Your task to perform on an android device: open app "Adobe Acrobat Reader: Edit PDF" (install if not already installed) and enter user name: "arthritis@inbox.com" and password: "scythes" Image 0: 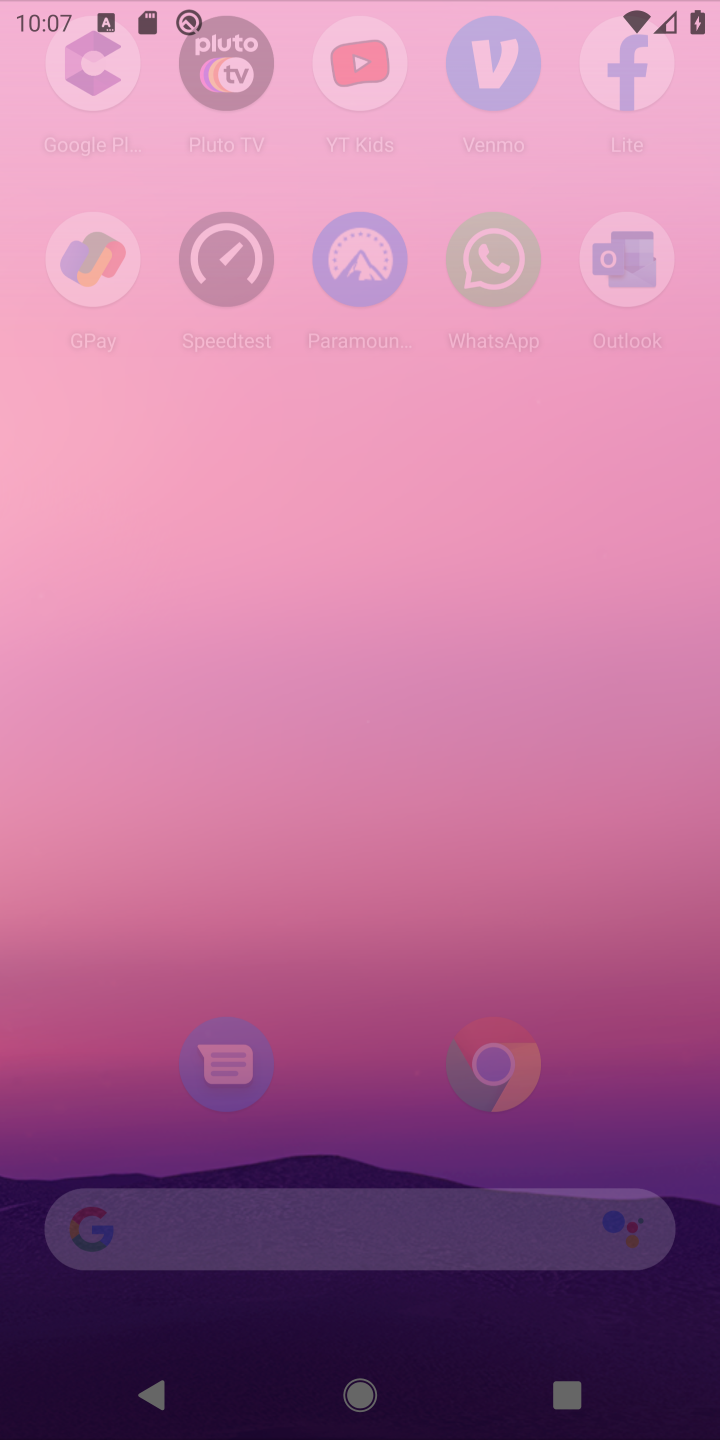
Step 0: press home button
Your task to perform on an android device: open app "Adobe Acrobat Reader: Edit PDF" (install if not already installed) and enter user name: "arthritis@inbox.com" and password: "scythes" Image 1: 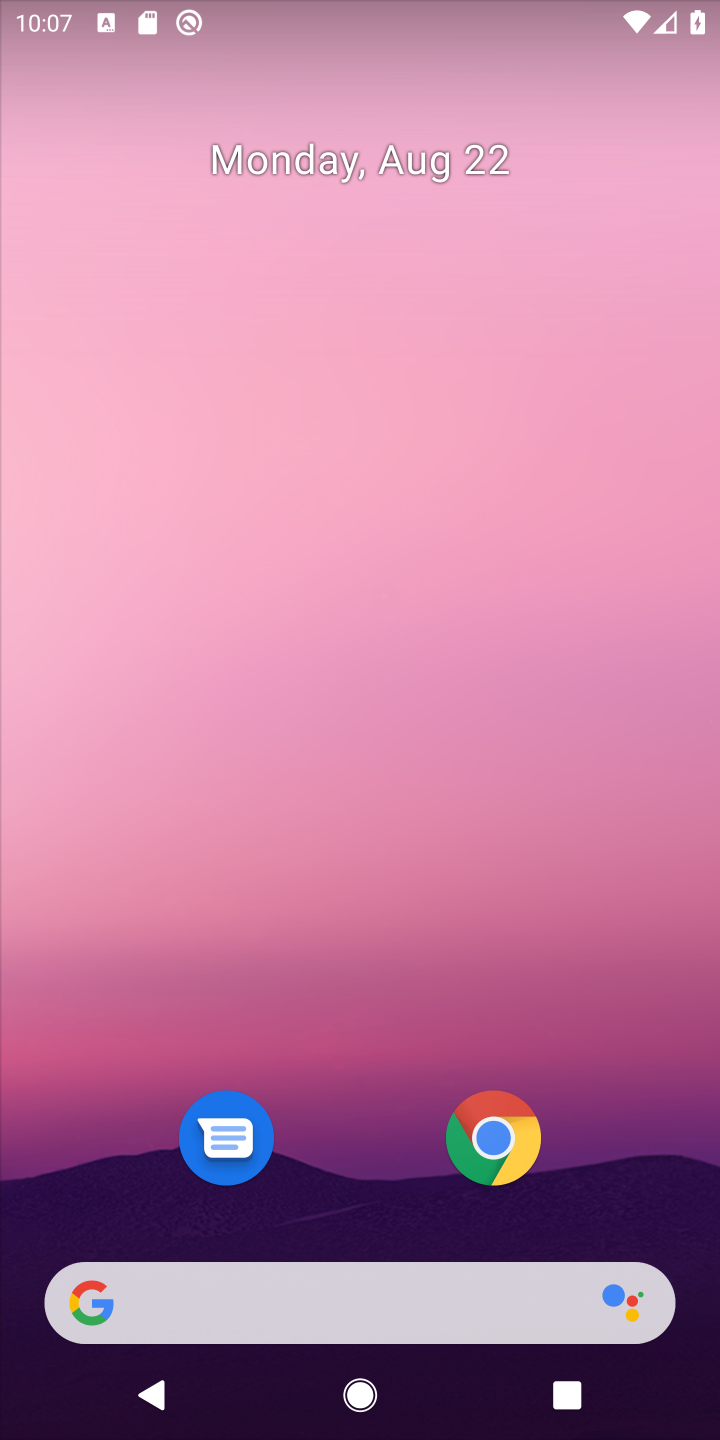
Step 1: drag from (375, 1214) to (340, 71)
Your task to perform on an android device: open app "Adobe Acrobat Reader: Edit PDF" (install if not already installed) and enter user name: "arthritis@inbox.com" and password: "scythes" Image 2: 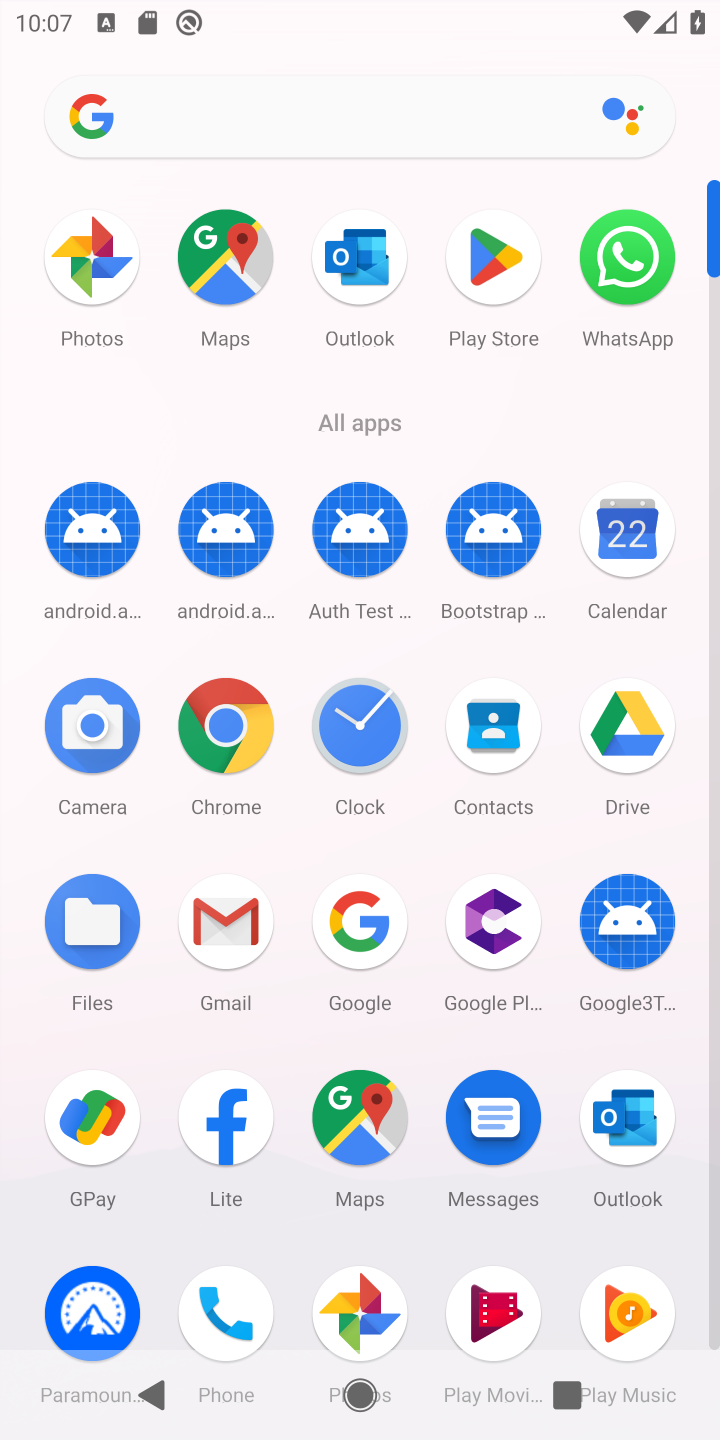
Step 2: drag from (413, 1227) to (441, 107)
Your task to perform on an android device: open app "Adobe Acrobat Reader: Edit PDF" (install if not already installed) and enter user name: "arthritis@inbox.com" and password: "scythes" Image 3: 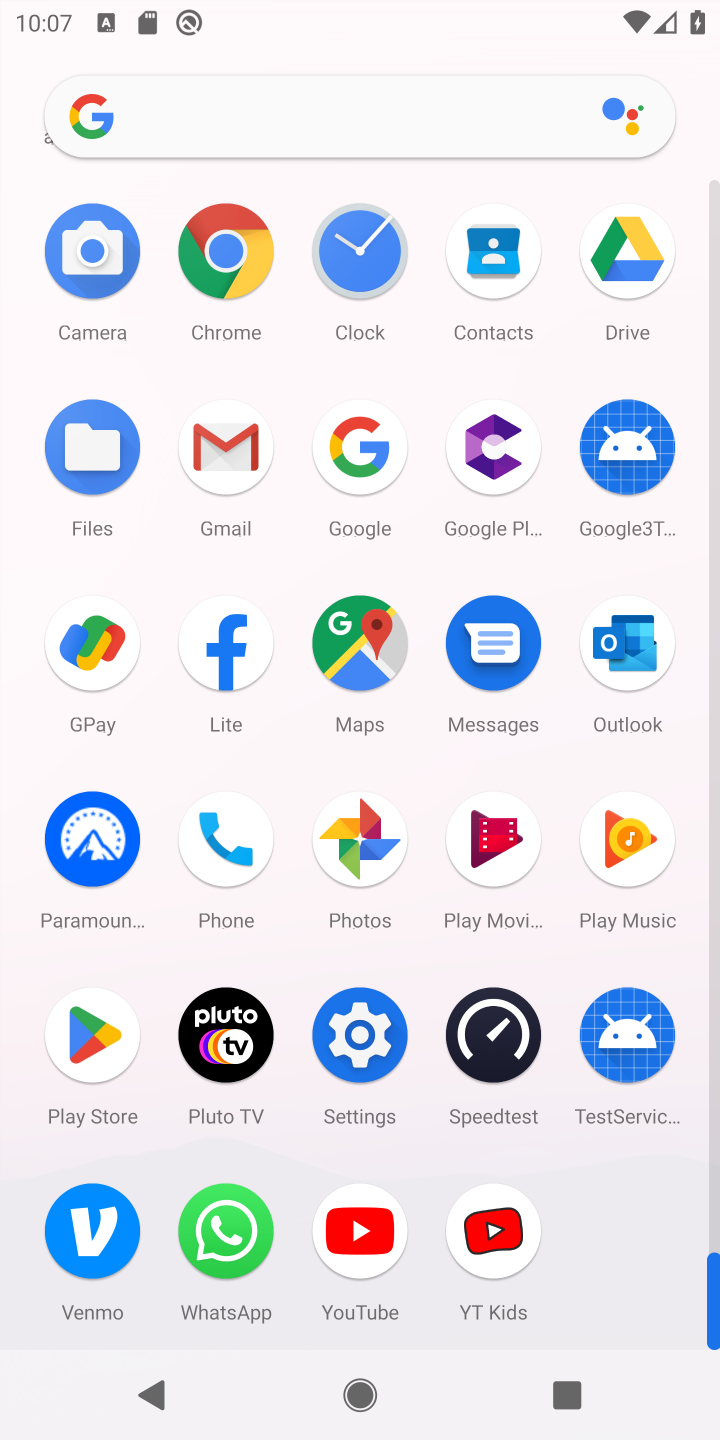
Step 3: click (85, 1022)
Your task to perform on an android device: open app "Adobe Acrobat Reader: Edit PDF" (install if not already installed) and enter user name: "arthritis@inbox.com" and password: "scythes" Image 4: 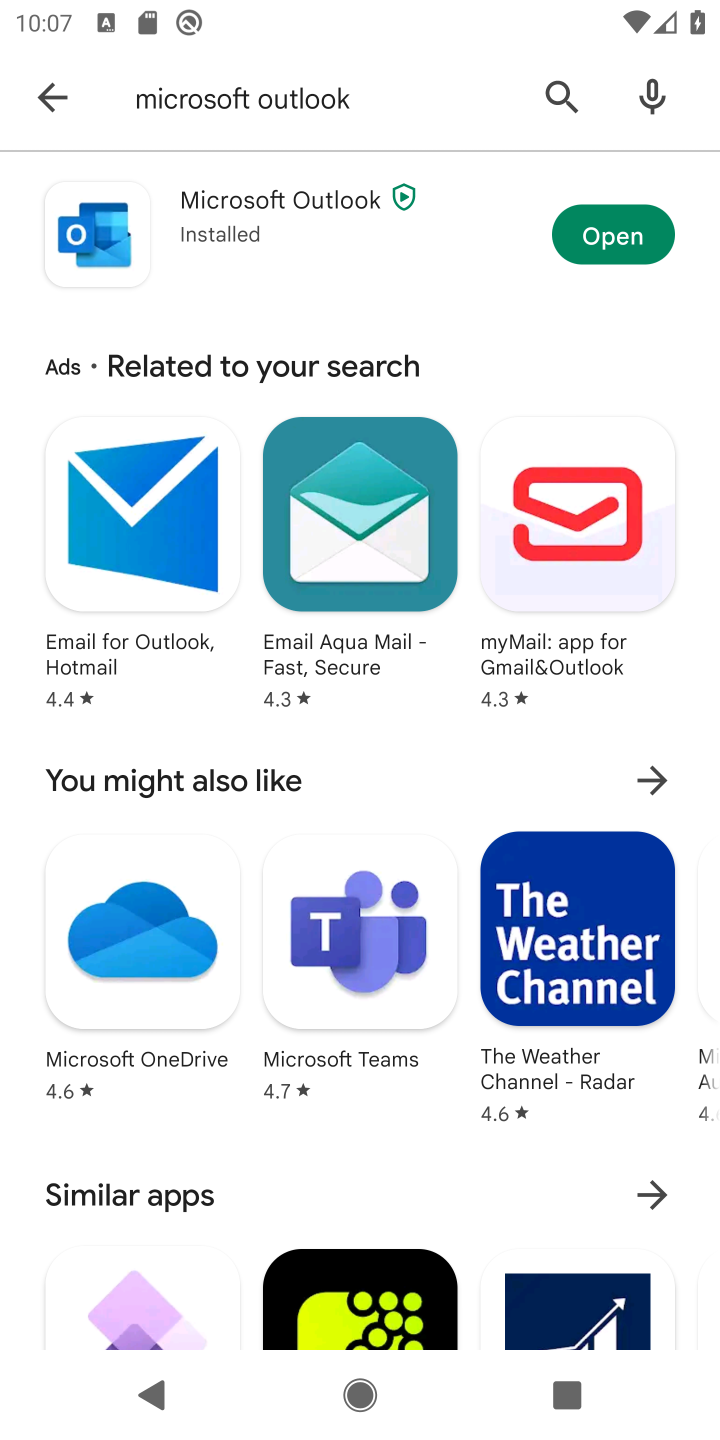
Step 4: click (567, 93)
Your task to perform on an android device: open app "Adobe Acrobat Reader: Edit PDF" (install if not already installed) and enter user name: "arthritis@inbox.com" and password: "scythes" Image 5: 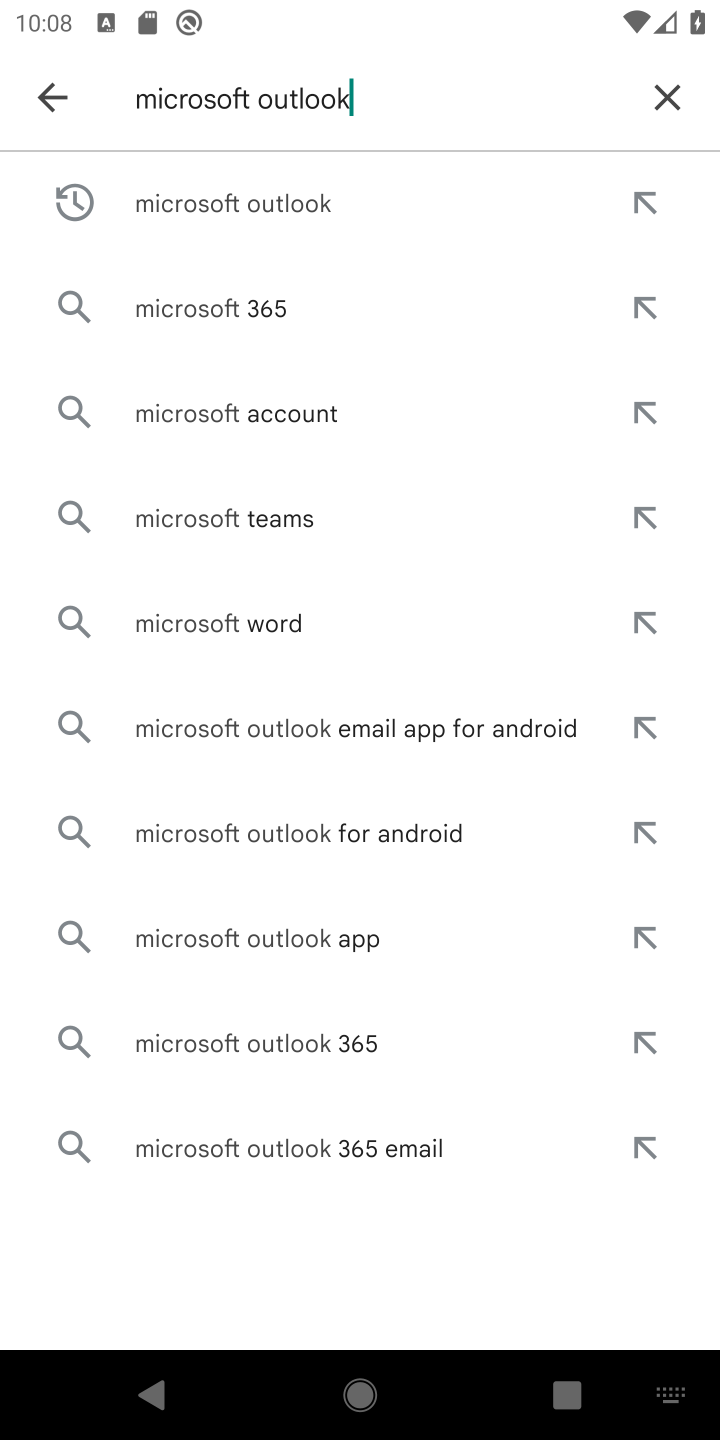
Step 5: click (658, 88)
Your task to perform on an android device: open app "Adobe Acrobat Reader: Edit PDF" (install if not already installed) and enter user name: "arthritis@inbox.com" and password: "scythes" Image 6: 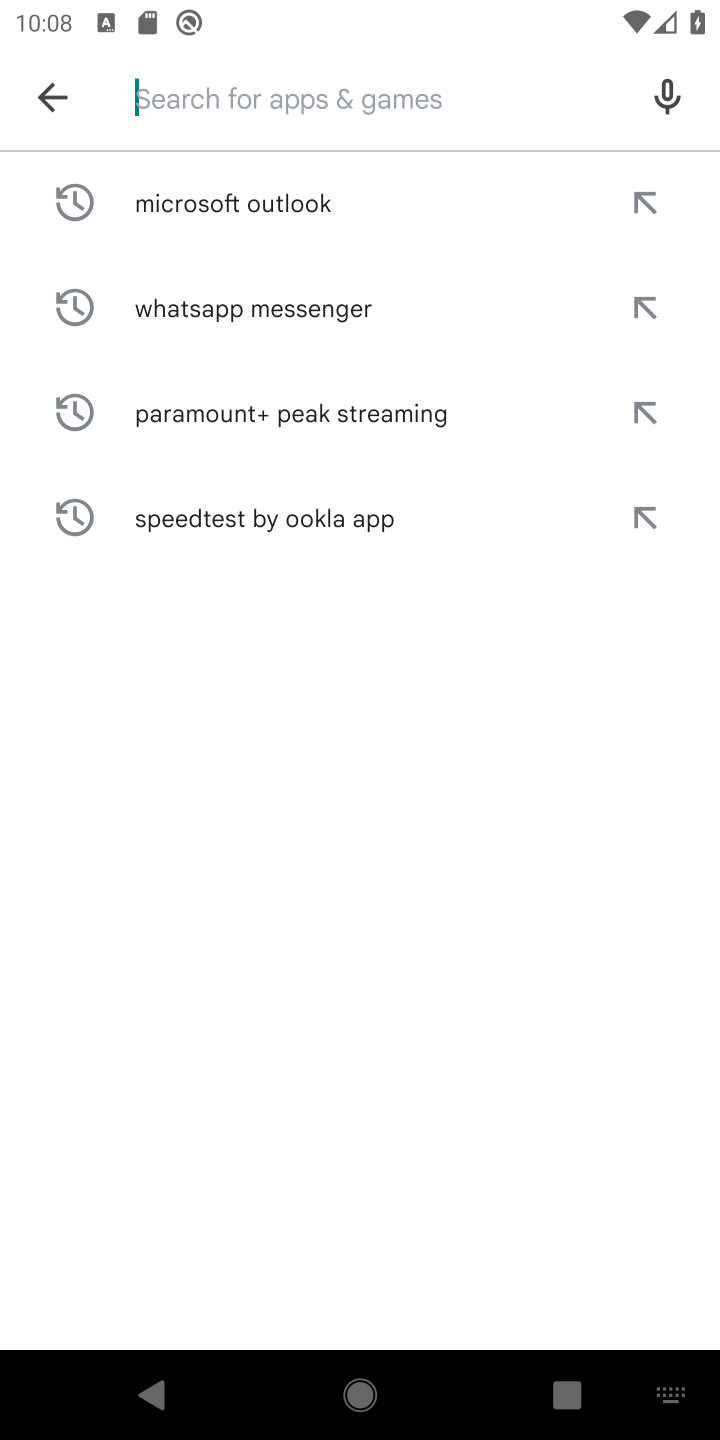
Step 6: type "Adobe Acrobat Reader: Edit PDF"
Your task to perform on an android device: open app "Adobe Acrobat Reader: Edit PDF" (install if not already installed) and enter user name: "arthritis@inbox.com" and password: "scythes" Image 7: 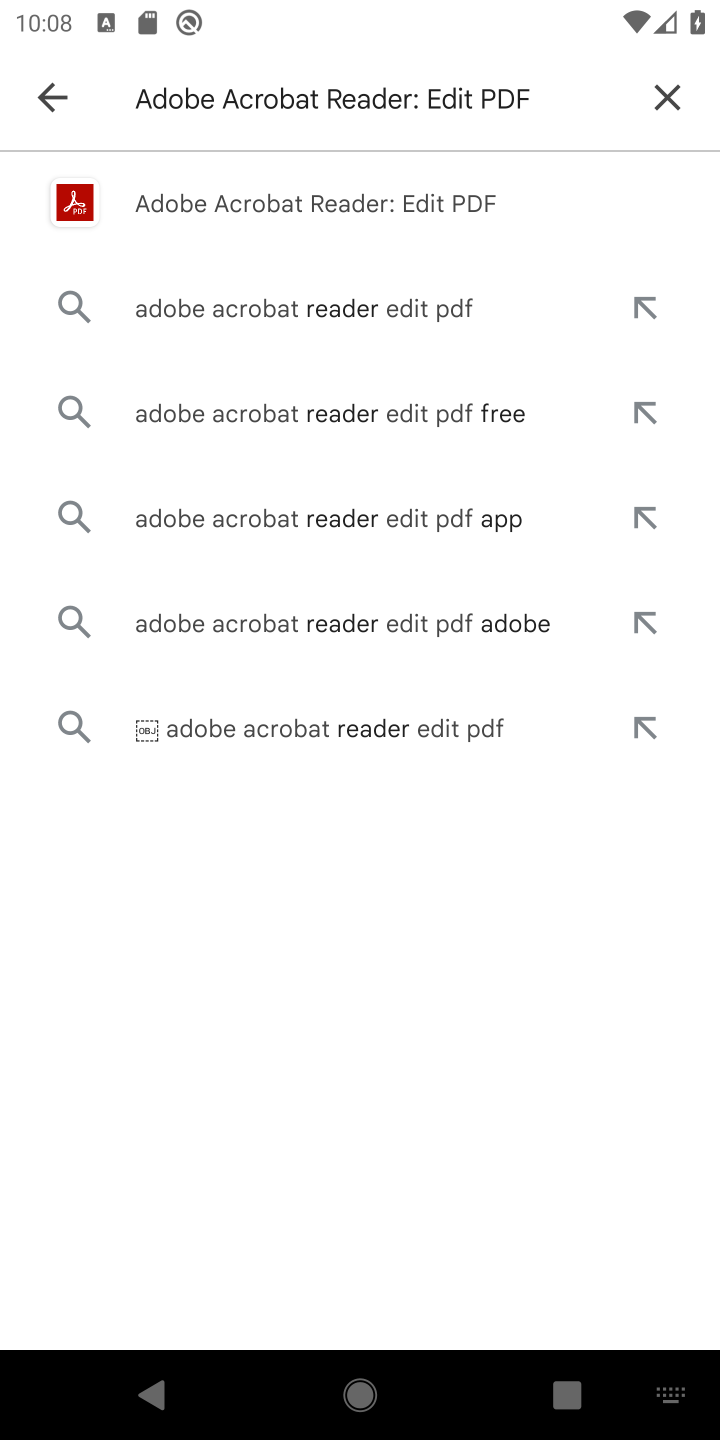
Step 7: click (294, 205)
Your task to perform on an android device: open app "Adobe Acrobat Reader: Edit PDF" (install if not already installed) and enter user name: "arthritis@inbox.com" and password: "scythes" Image 8: 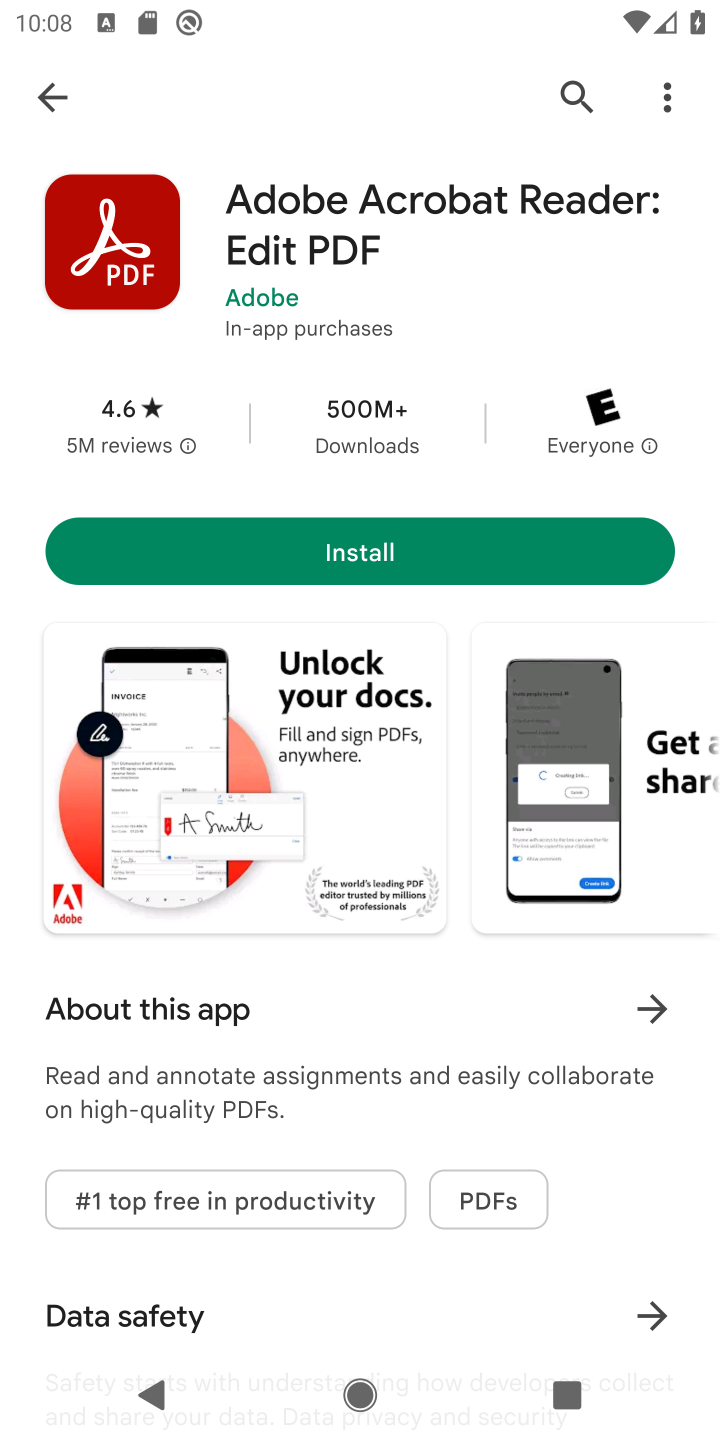
Step 8: click (360, 550)
Your task to perform on an android device: open app "Adobe Acrobat Reader: Edit PDF" (install if not already installed) and enter user name: "arthritis@inbox.com" and password: "scythes" Image 9: 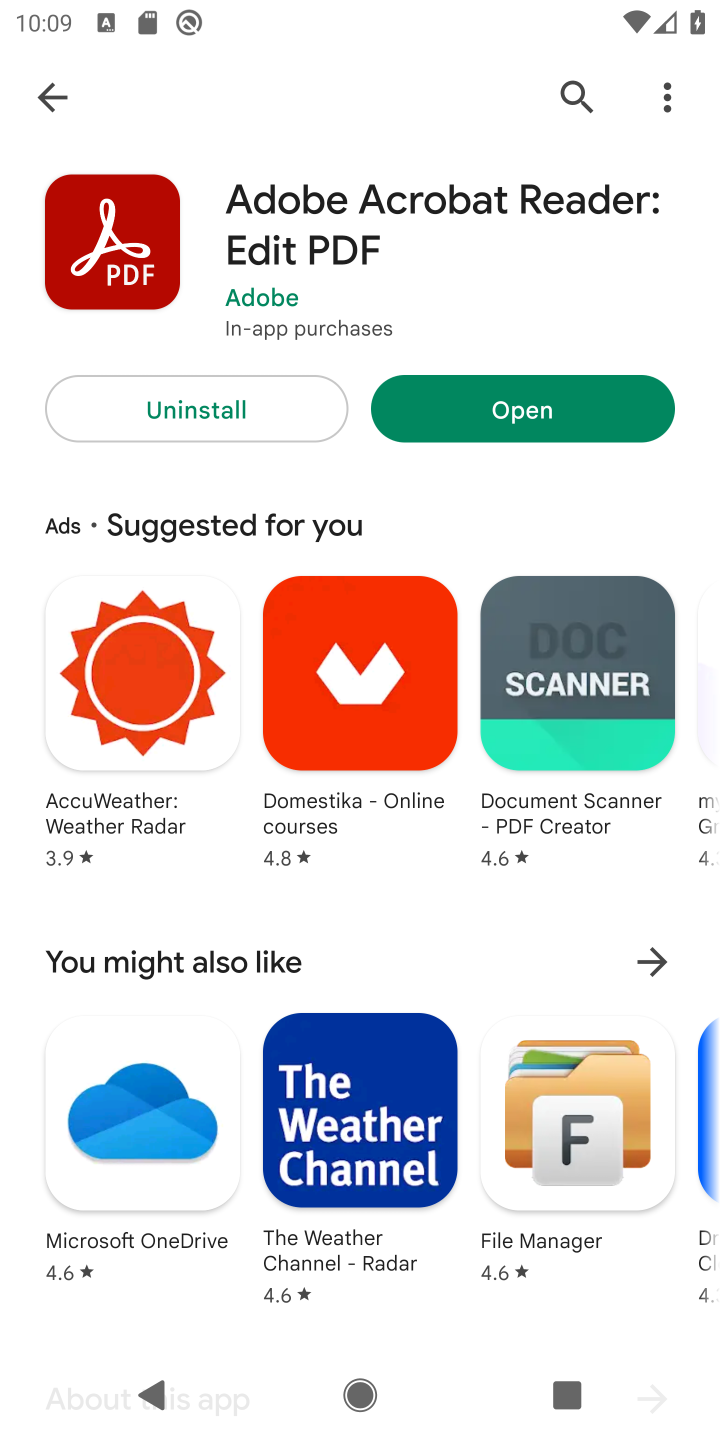
Step 9: click (532, 410)
Your task to perform on an android device: open app "Adobe Acrobat Reader: Edit PDF" (install if not already installed) and enter user name: "arthritis@inbox.com" and password: "scythes" Image 10: 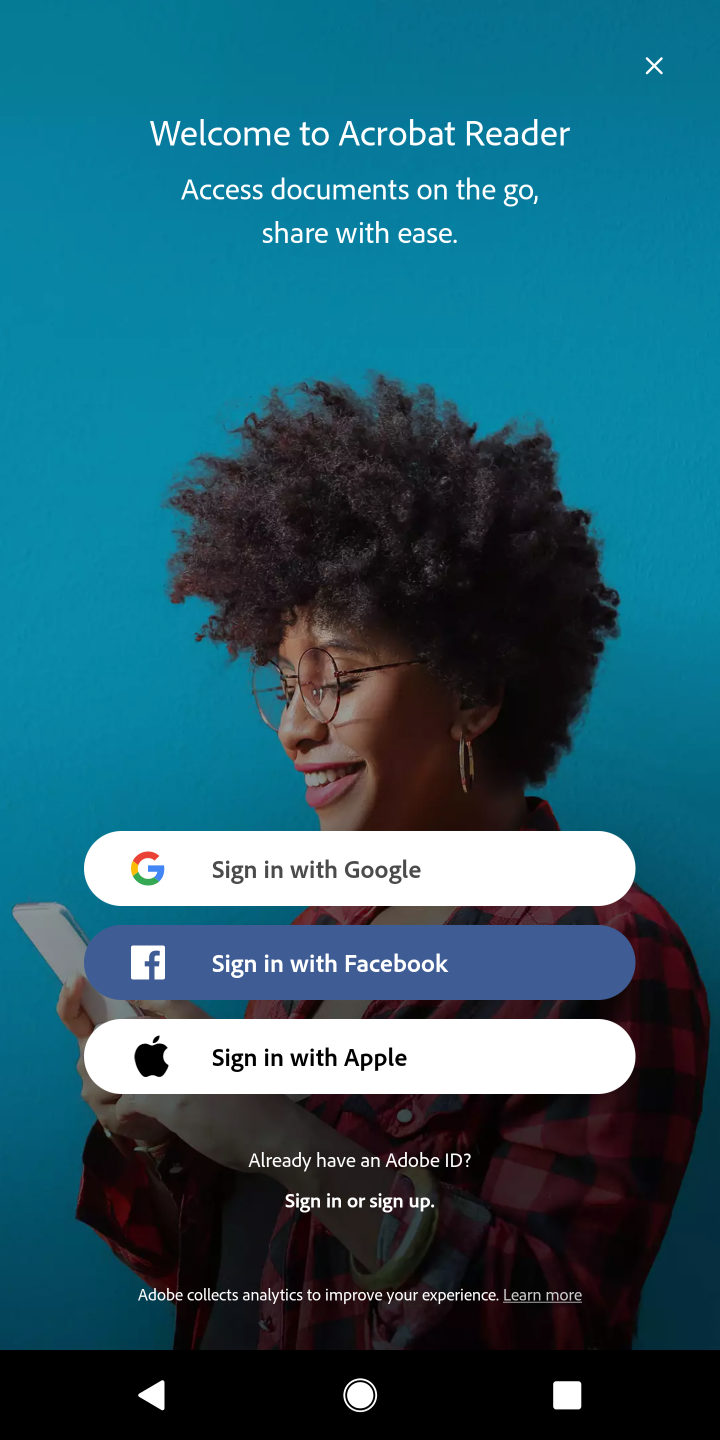
Step 10: click (268, 867)
Your task to perform on an android device: open app "Adobe Acrobat Reader: Edit PDF" (install if not already installed) and enter user name: "arthritis@inbox.com" and password: "scythes" Image 11: 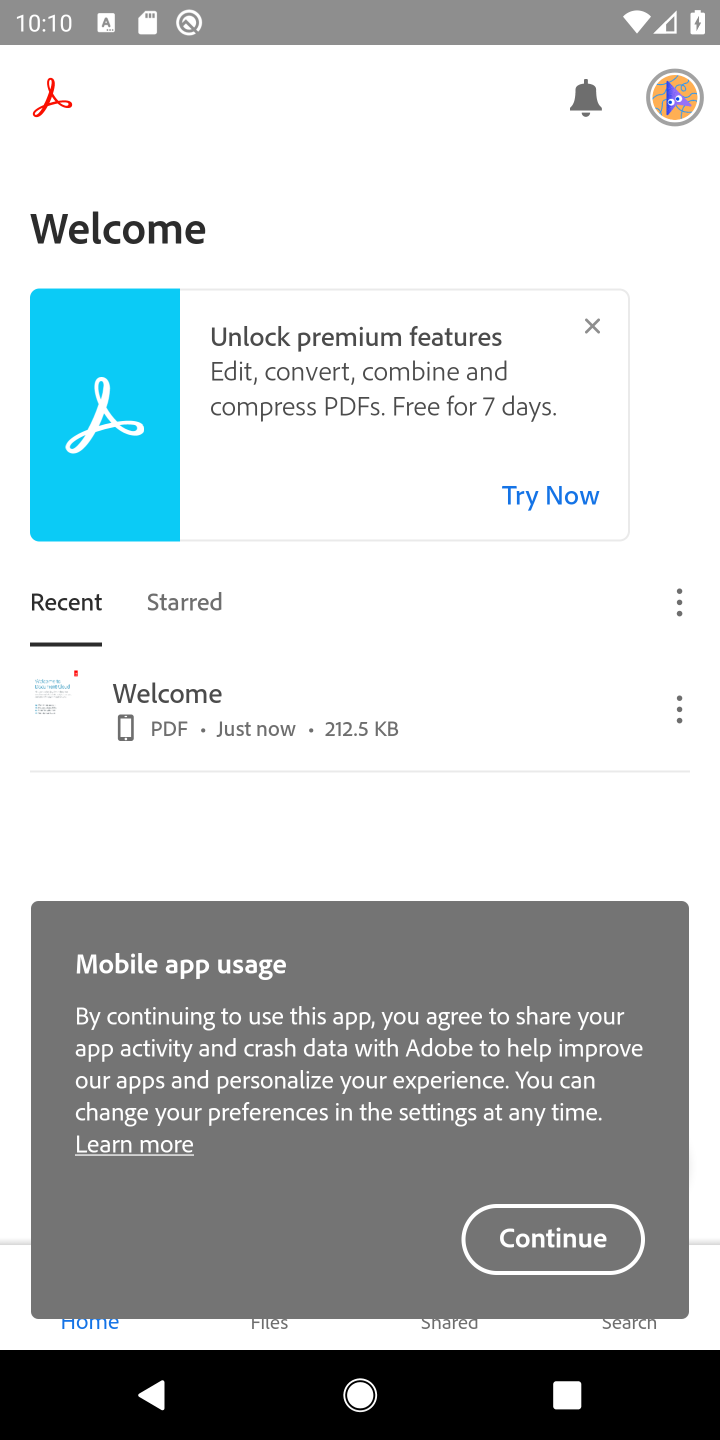
Step 11: task complete